Your task to perform on an android device: check out phone information Image 0: 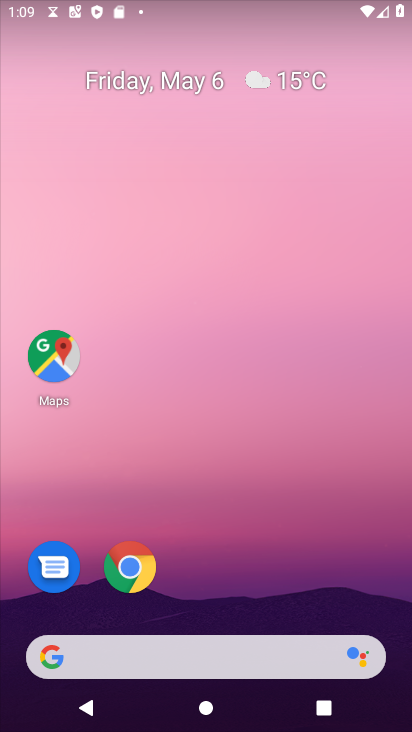
Step 0: drag from (303, 585) to (285, 141)
Your task to perform on an android device: check out phone information Image 1: 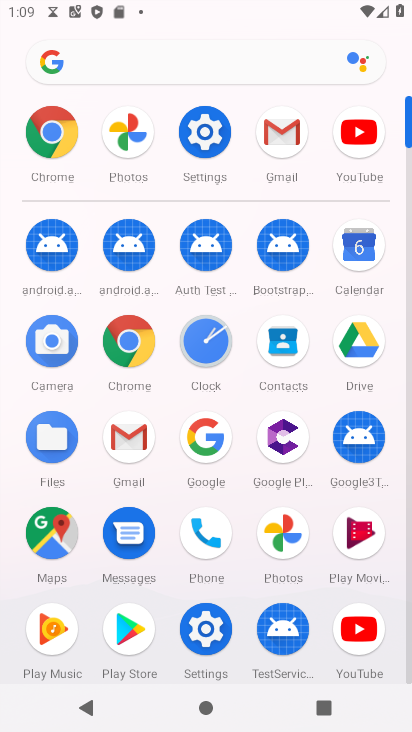
Step 1: click (190, 127)
Your task to perform on an android device: check out phone information Image 2: 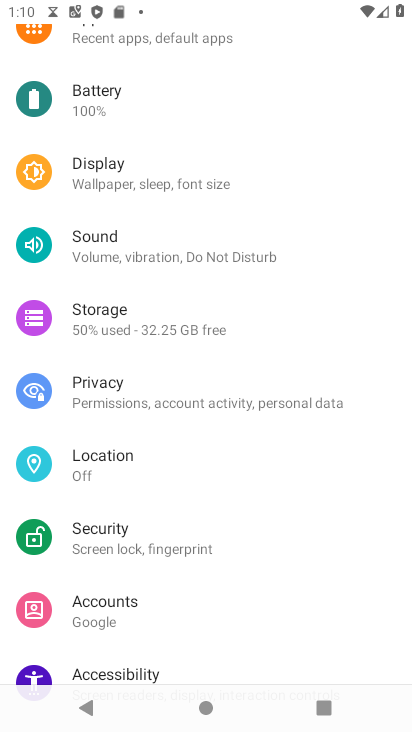
Step 2: drag from (242, 633) to (221, 162)
Your task to perform on an android device: check out phone information Image 3: 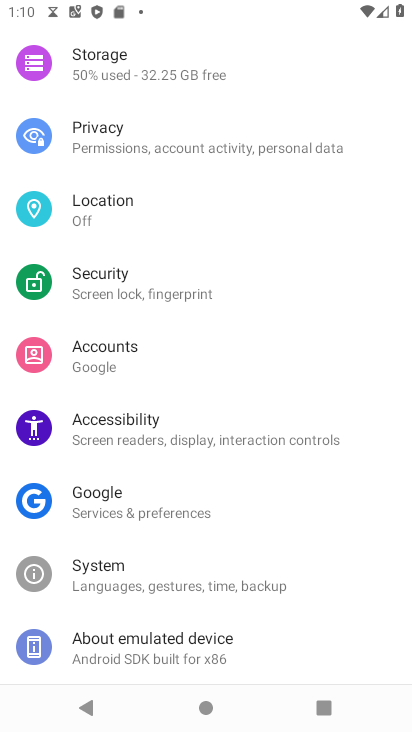
Step 3: drag from (250, 609) to (264, 195)
Your task to perform on an android device: check out phone information Image 4: 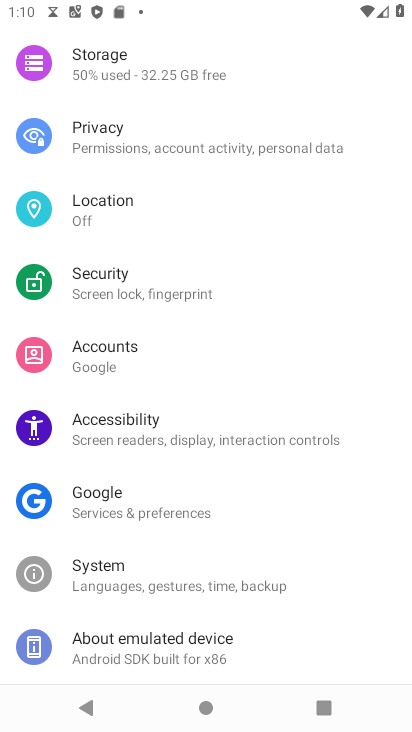
Step 4: click (138, 636)
Your task to perform on an android device: check out phone information Image 5: 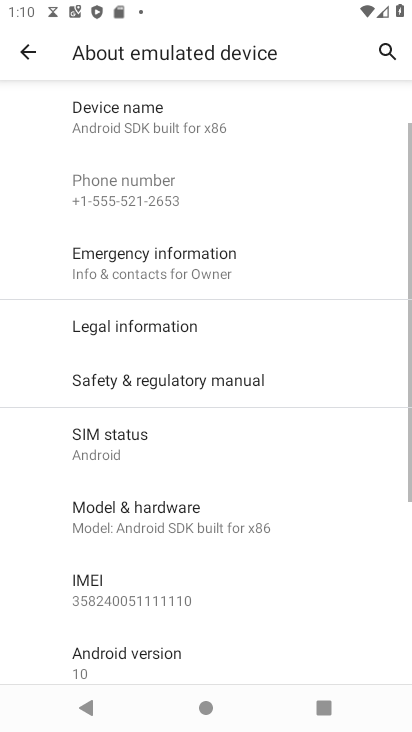
Step 5: task complete